Your task to perform on an android device: stop showing notifications on the lock screen Image 0: 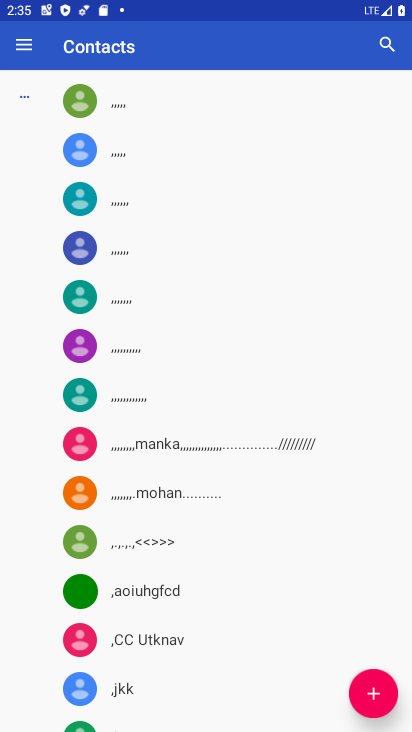
Step 0: press home button
Your task to perform on an android device: stop showing notifications on the lock screen Image 1: 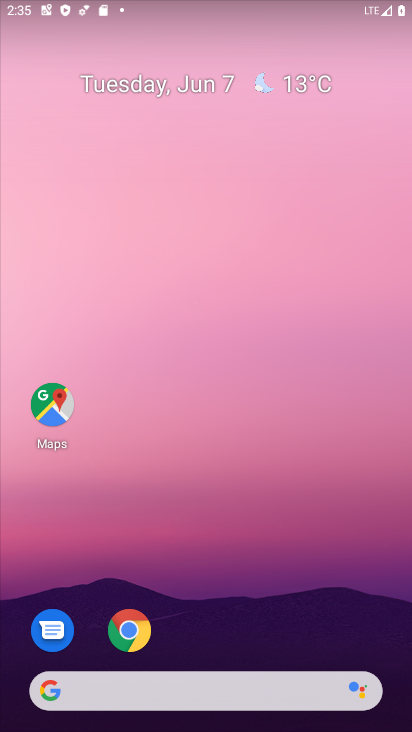
Step 1: drag from (197, 608) to (220, 272)
Your task to perform on an android device: stop showing notifications on the lock screen Image 2: 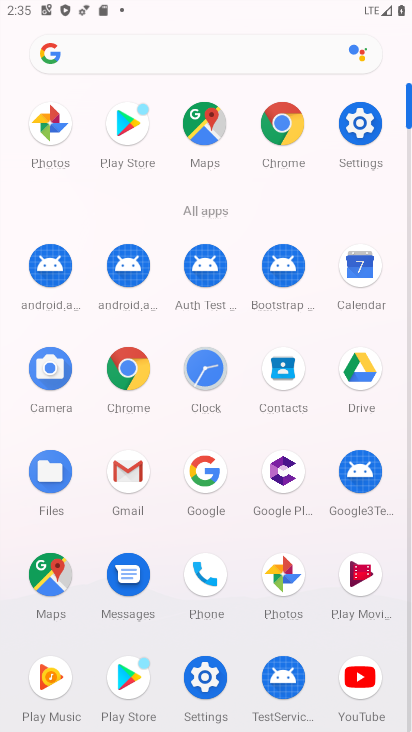
Step 2: click (353, 124)
Your task to perform on an android device: stop showing notifications on the lock screen Image 3: 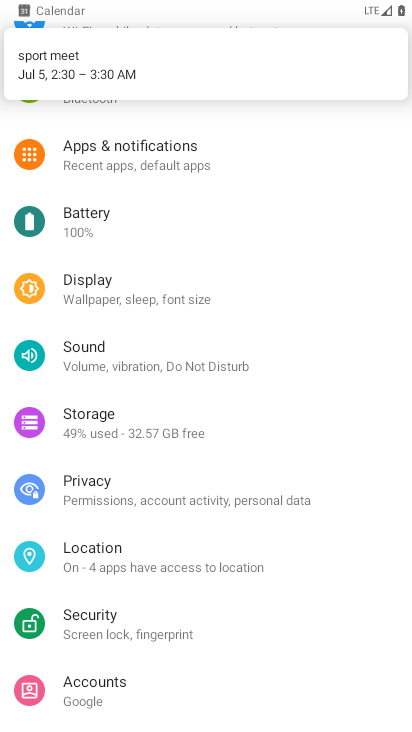
Step 3: click (169, 137)
Your task to perform on an android device: stop showing notifications on the lock screen Image 4: 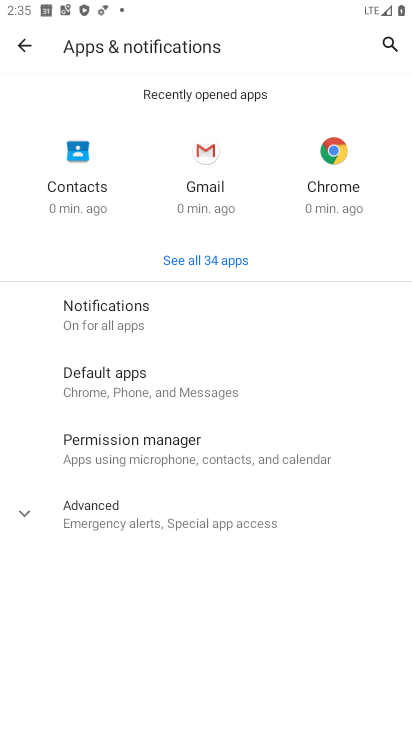
Step 4: click (124, 311)
Your task to perform on an android device: stop showing notifications on the lock screen Image 5: 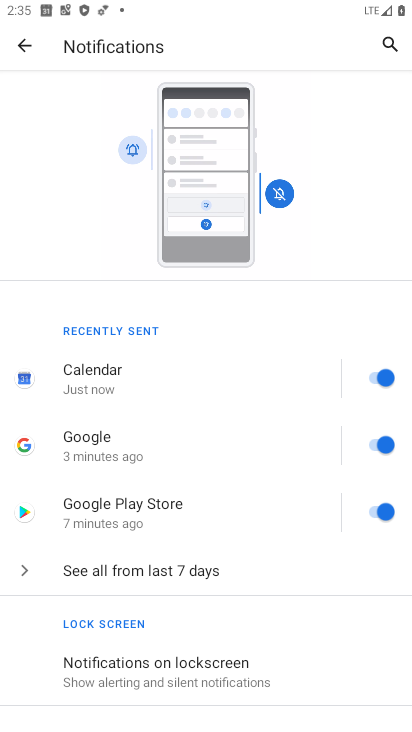
Step 5: click (133, 664)
Your task to perform on an android device: stop showing notifications on the lock screen Image 6: 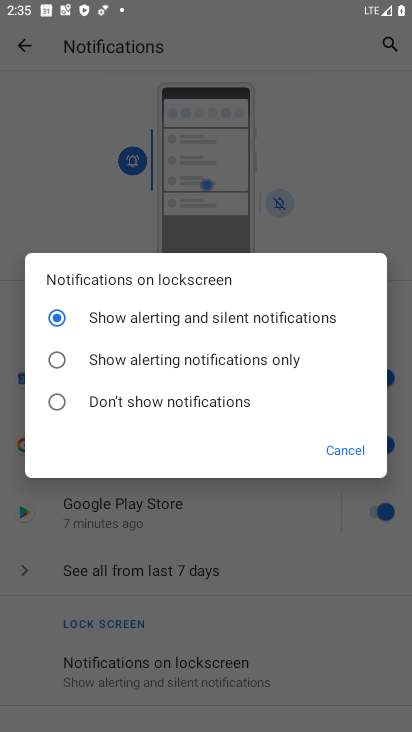
Step 6: click (152, 393)
Your task to perform on an android device: stop showing notifications on the lock screen Image 7: 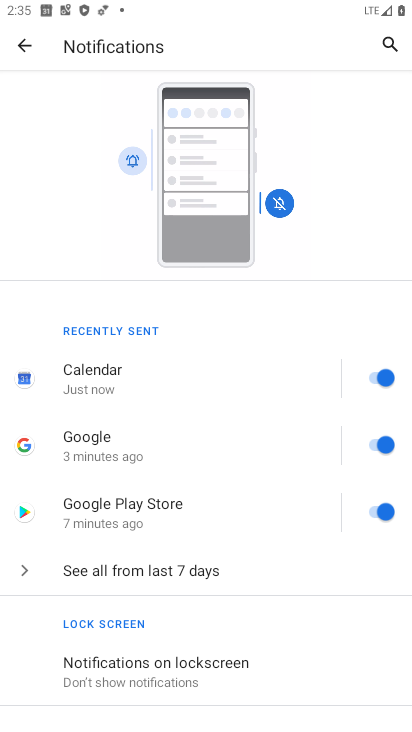
Step 7: task complete